Your task to perform on an android device: add a contact Image 0: 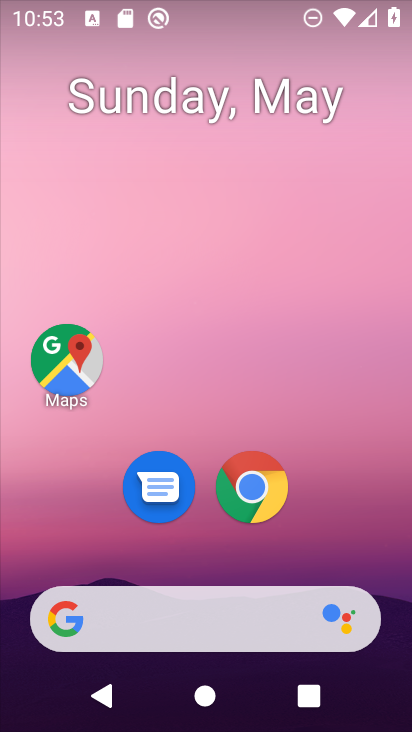
Step 0: drag from (205, 580) to (151, 153)
Your task to perform on an android device: add a contact Image 1: 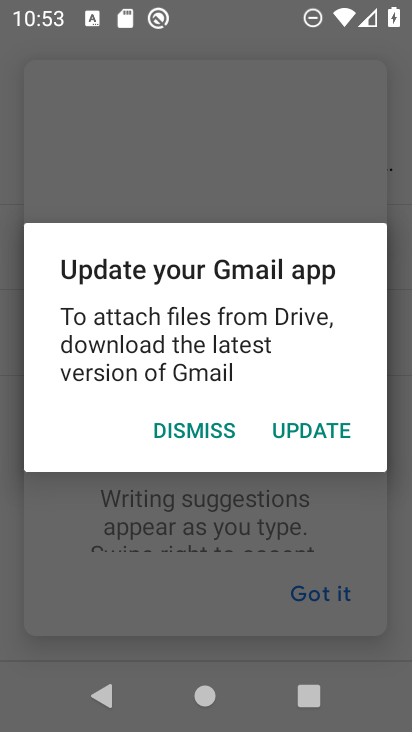
Step 1: press home button
Your task to perform on an android device: add a contact Image 2: 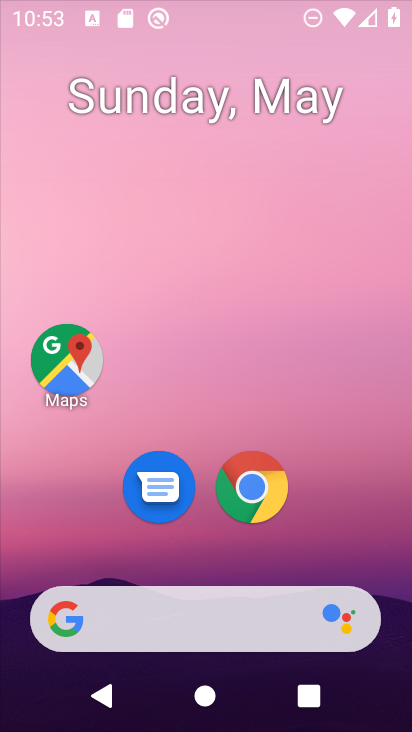
Step 2: drag from (199, 600) to (205, 136)
Your task to perform on an android device: add a contact Image 3: 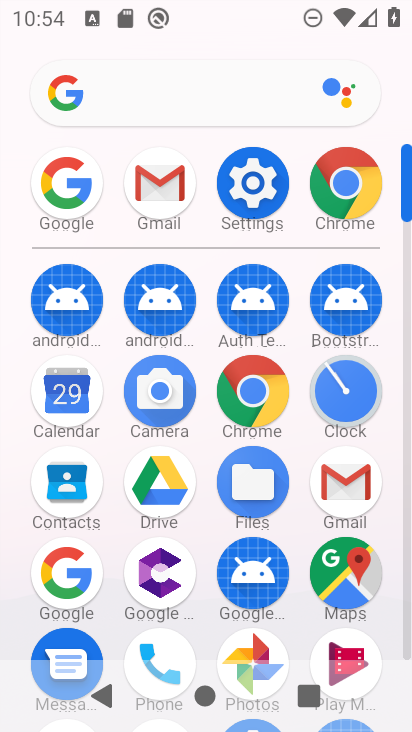
Step 3: click (79, 499)
Your task to perform on an android device: add a contact Image 4: 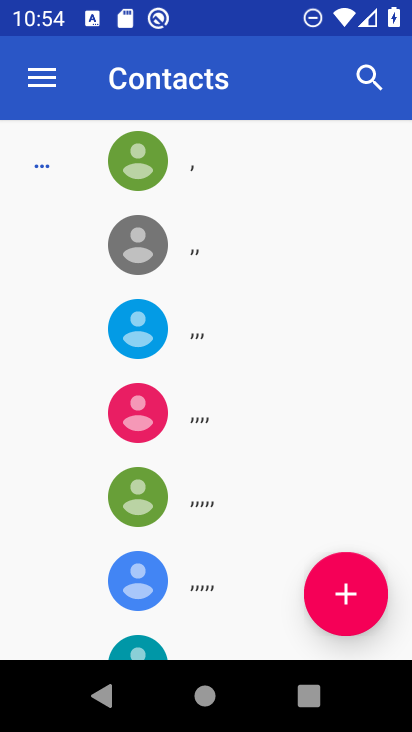
Step 4: click (359, 611)
Your task to perform on an android device: add a contact Image 5: 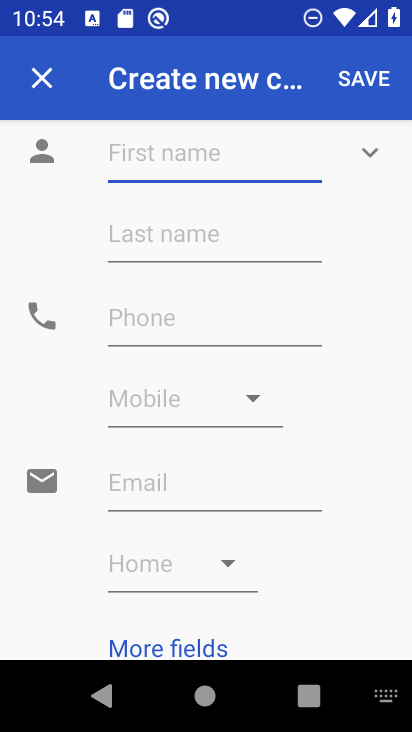
Step 5: type "hfggfhtf"
Your task to perform on an android device: add a contact Image 6: 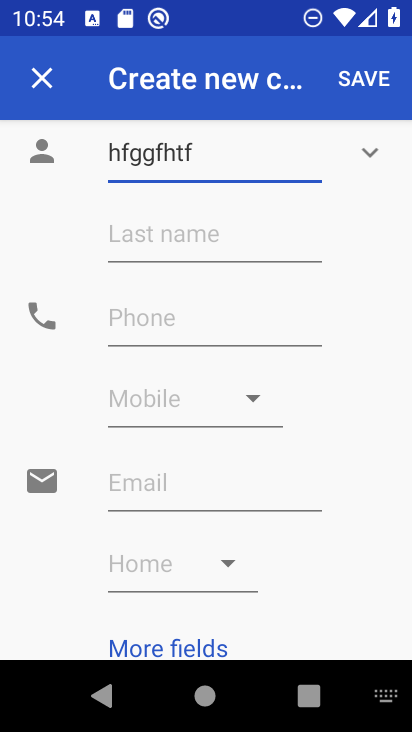
Step 6: click (162, 334)
Your task to perform on an android device: add a contact Image 7: 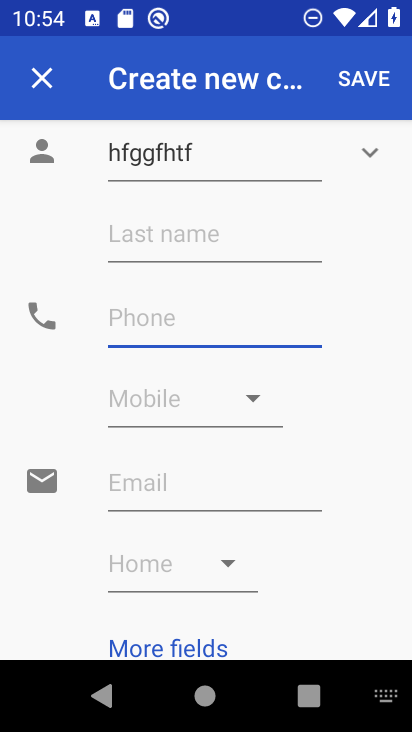
Step 7: type "345675644"
Your task to perform on an android device: add a contact Image 8: 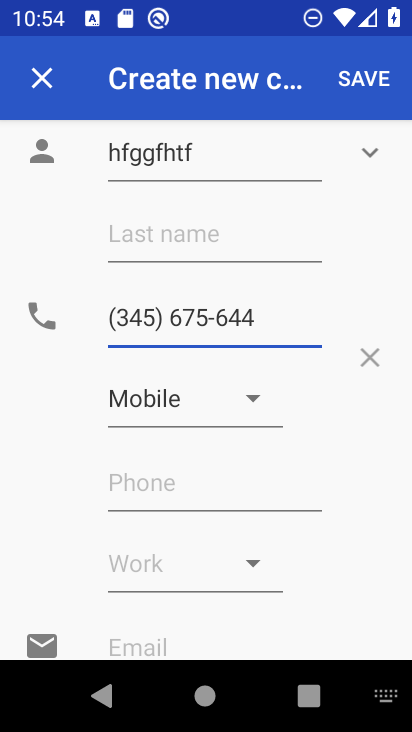
Step 8: click (354, 82)
Your task to perform on an android device: add a contact Image 9: 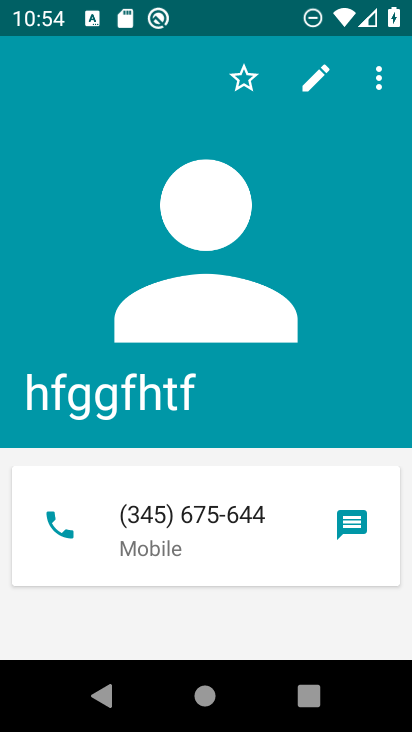
Step 9: task complete